Your task to perform on an android device: Open Google Chrome Image 0: 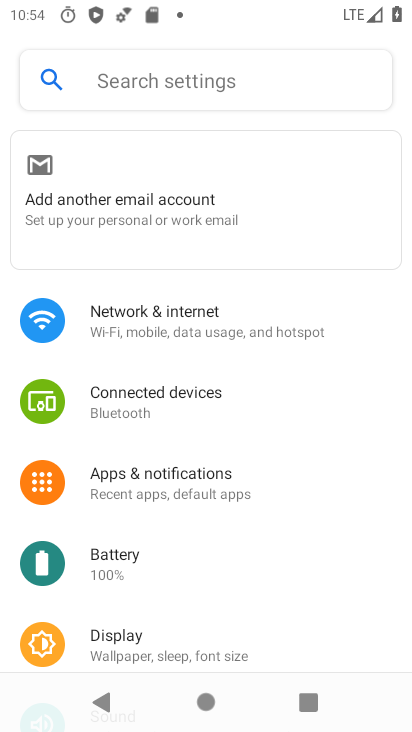
Step 0: press home button
Your task to perform on an android device: Open Google Chrome Image 1: 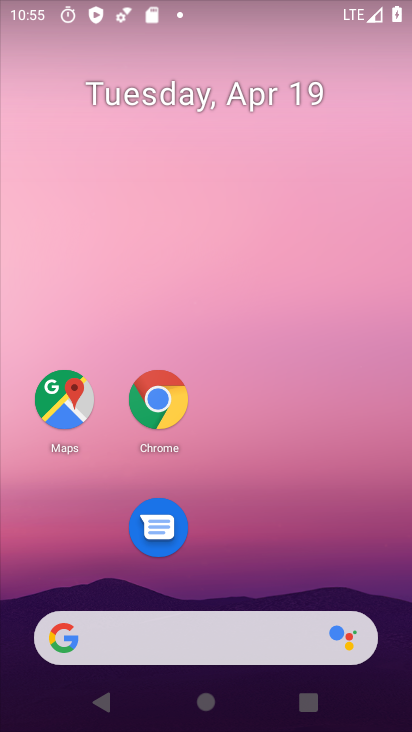
Step 1: drag from (276, 674) to (197, 234)
Your task to perform on an android device: Open Google Chrome Image 2: 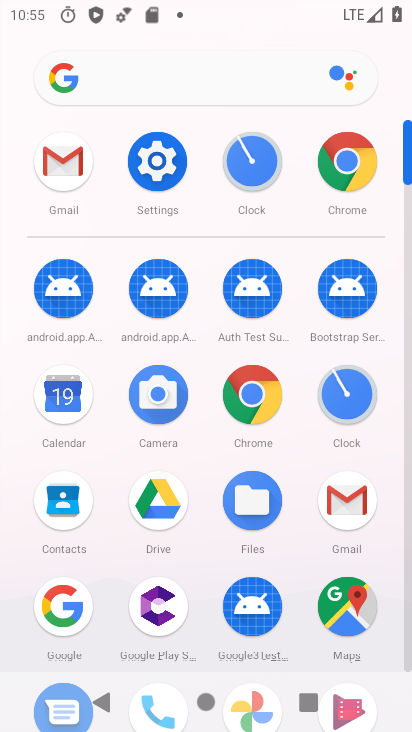
Step 2: click (331, 165)
Your task to perform on an android device: Open Google Chrome Image 3: 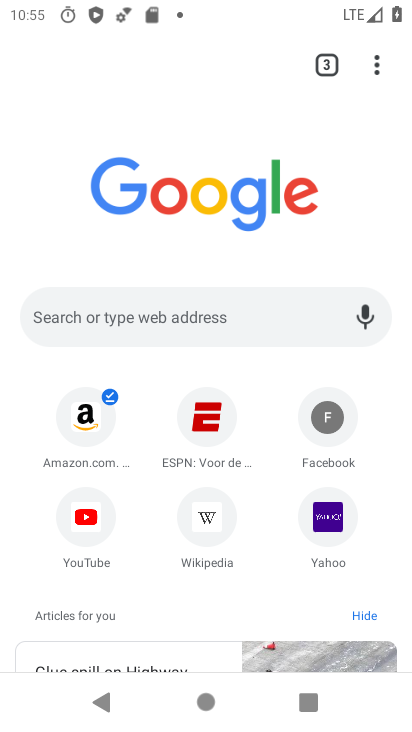
Step 3: task complete